Your task to perform on an android device: Open Youtube and go to "Your channel" Image 0: 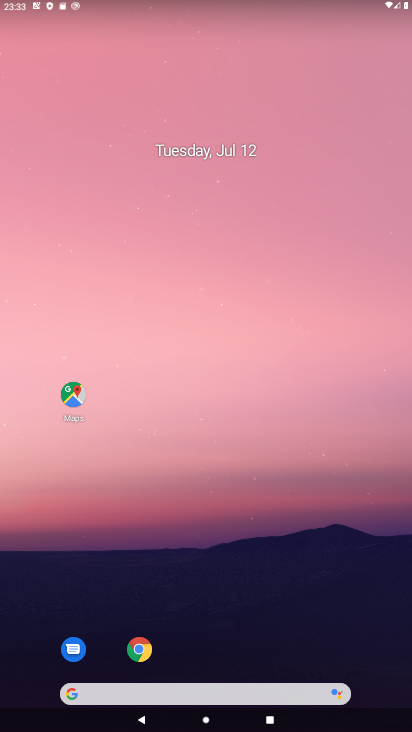
Step 0: drag from (350, 657) to (350, 112)
Your task to perform on an android device: Open Youtube and go to "Your channel" Image 1: 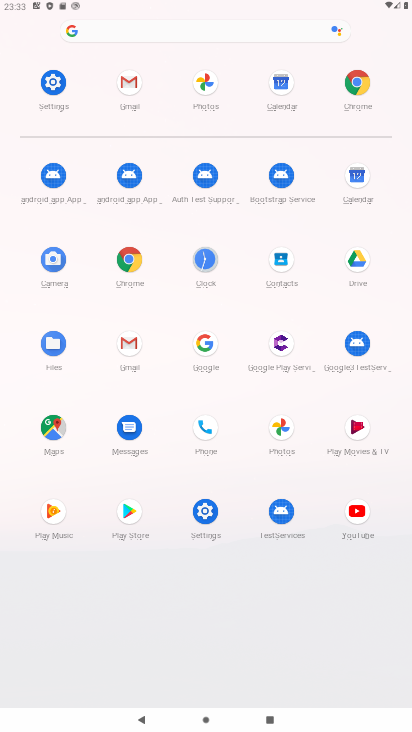
Step 1: click (356, 512)
Your task to perform on an android device: Open Youtube and go to "Your channel" Image 2: 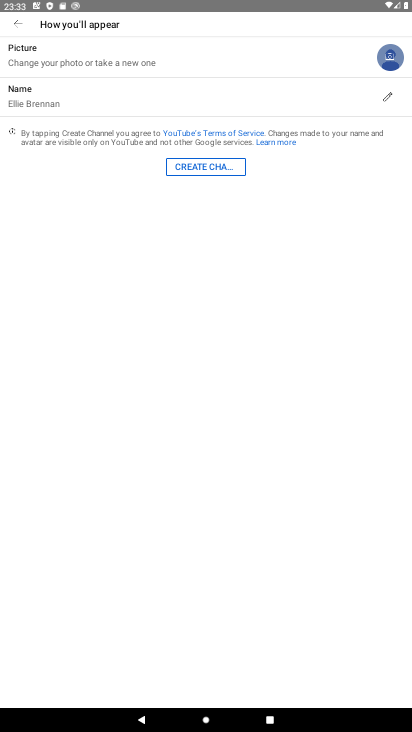
Step 2: task complete